Your task to perform on an android device: remove spam from my inbox in the gmail app Image 0: 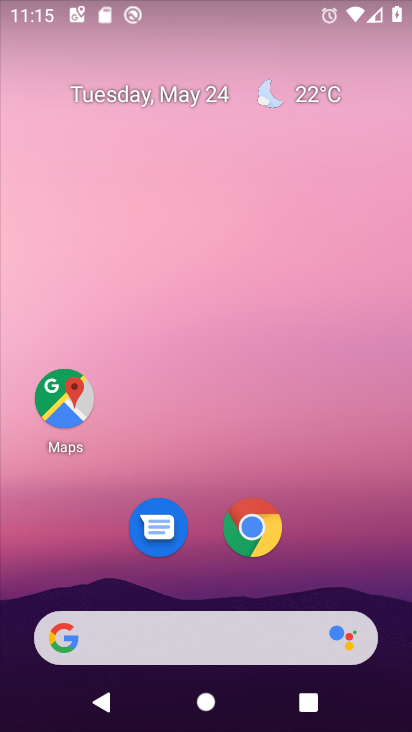
Step 0: drag from (179, 604) to (329, 135)
Your task to perform on an android device: remove spam from my inbox in the gmail app Image 1: 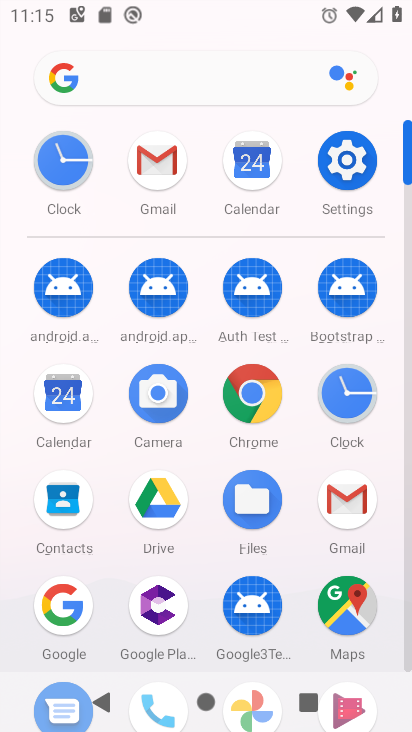
Step 1: click (143, 169)
Your task to perform on an android device: remove spam from my inbox in the gmail app Image 2: 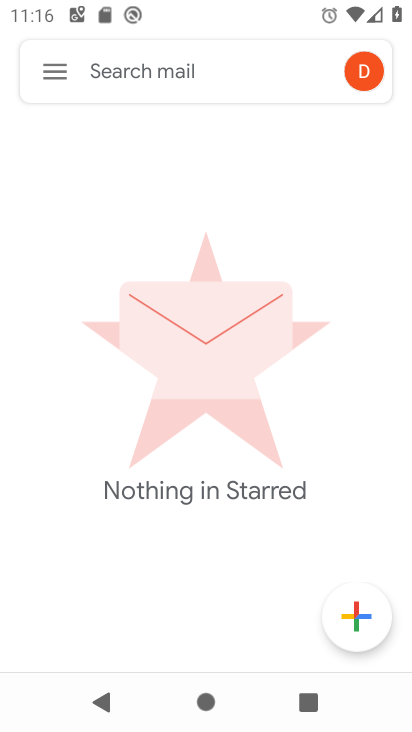
Step 2: click (51, 73)
Your task to perform on an android device: remove spam from my inbox in the gmail app Image 3: 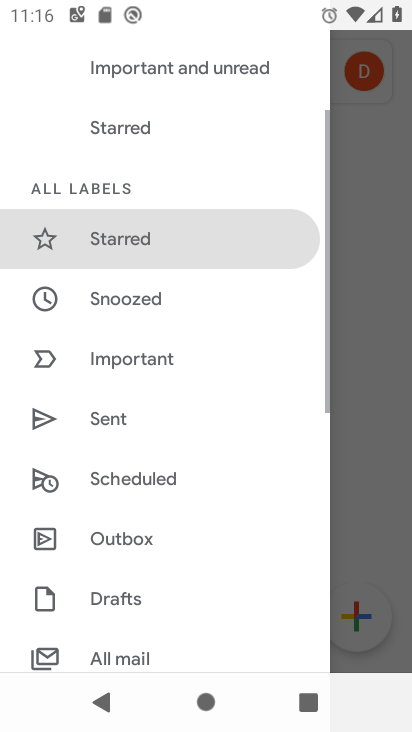
Step 3: drag from (183, 574) to (165, 113)
Your task to perform on an android device: remove spam from my inbox in the gmail app Image 4: 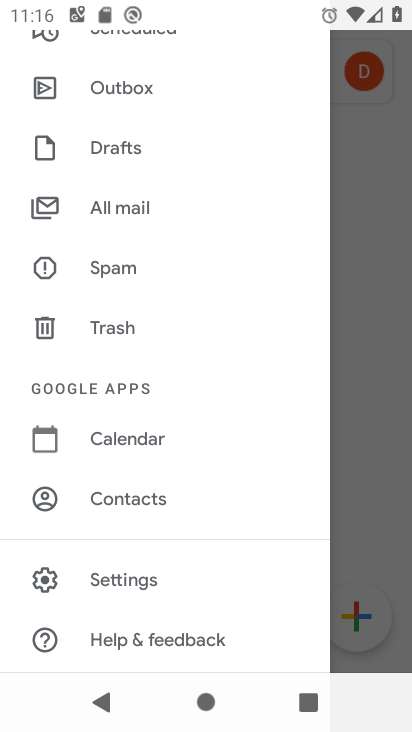
Step 4: click (112, 267)
Your task to perform on an android device: remove spam from my inbox in the gmail app Image 5: 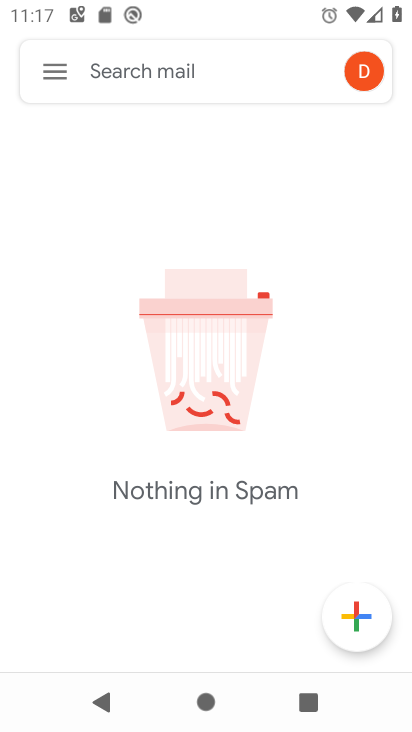
Step 5: task complete